Your task to perform on an android device: Go to calendar. Show me events next week Image 0: 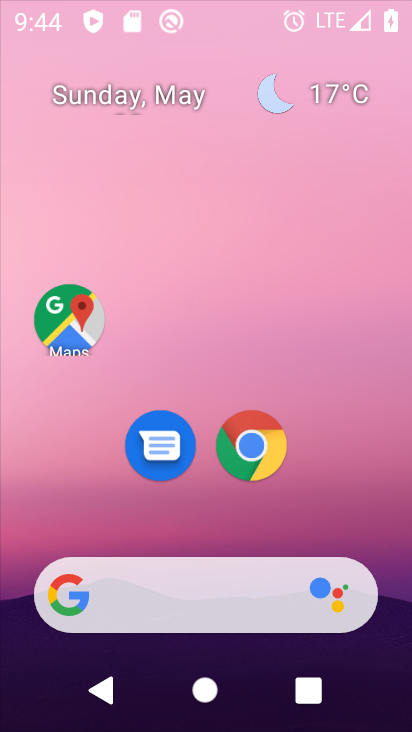
Step 0: click (371, 453)
Your task to perform on an android device: Go to calendar. Show me events next week Image 1: 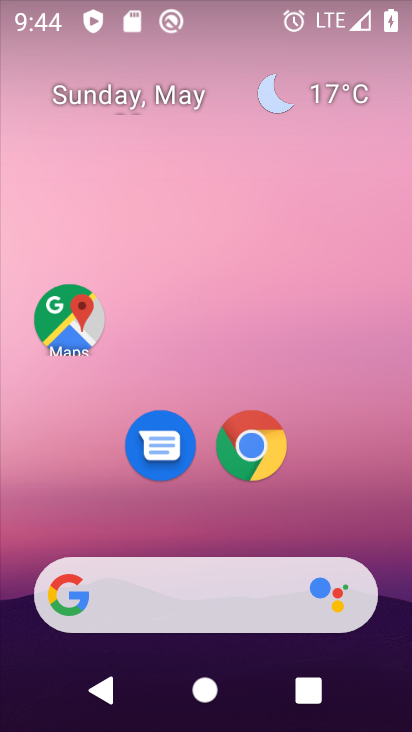
Step 1: drag from (167, 529) to (339, 210)
Your task to perform on an android device: Go to calendar. Show me events next week Image 2: 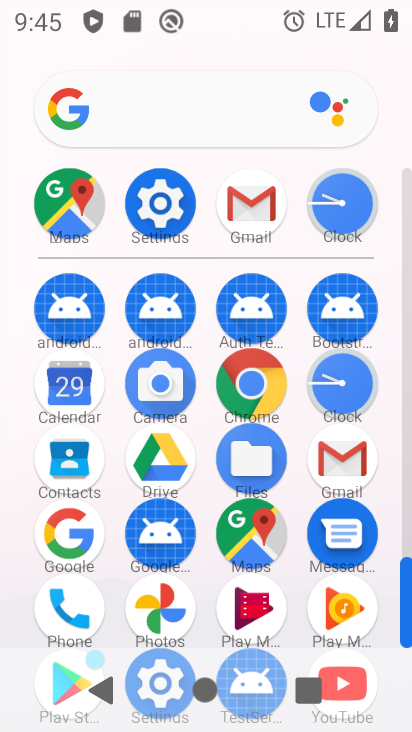
Step 2: click (71, 398)
Your task to perform on an android device: Go to calendar. Show me events next week Image 3: 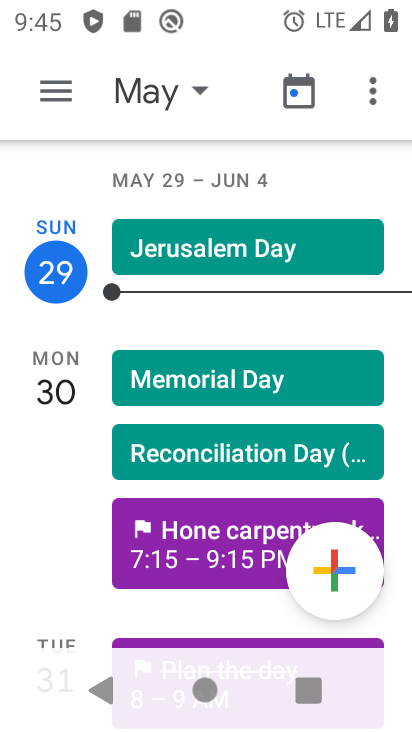
Step 3: drag from (232, 559) to (374, 168)
Your task to perform on an android device: Go to calendar. Show me events next week Image 4: 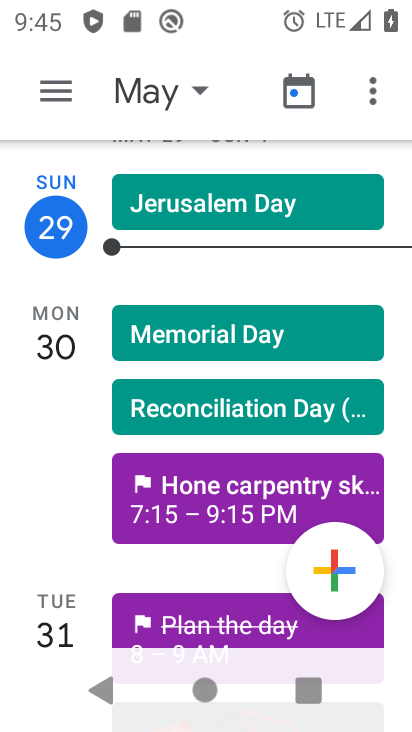
Step 4: click (173, 108)
Your task to perform on an android device: Go to calendar. Show me events next week Image 5: 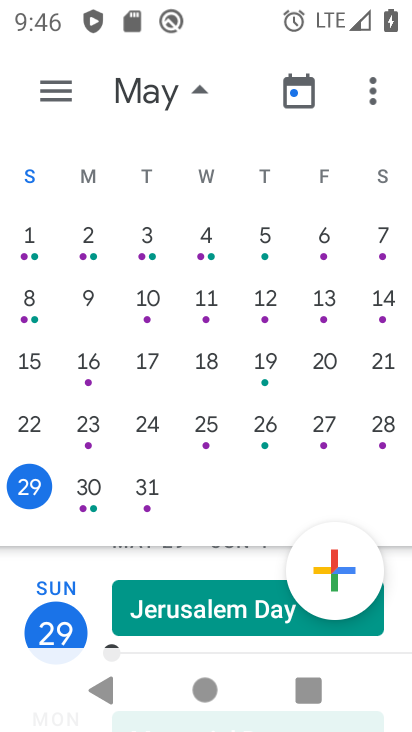
Step 5: click (65, 478)
Your task to perform on an android device: Go to calendar. Show me events next week Image 6: 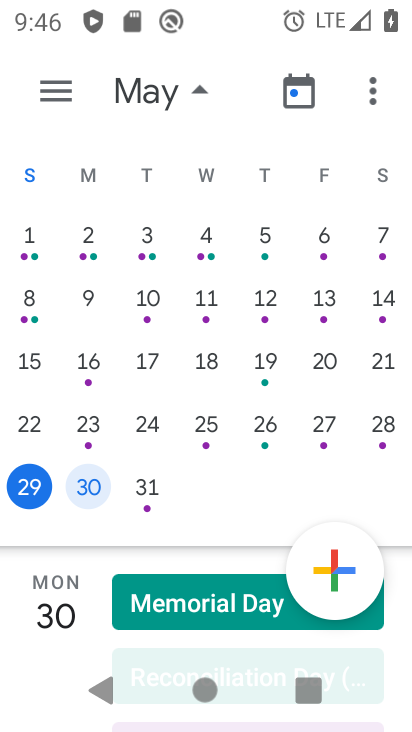
Step 6: click (82, 488)
Your task to perform on an android device: Go to calendar. Show me events next week Image 7: 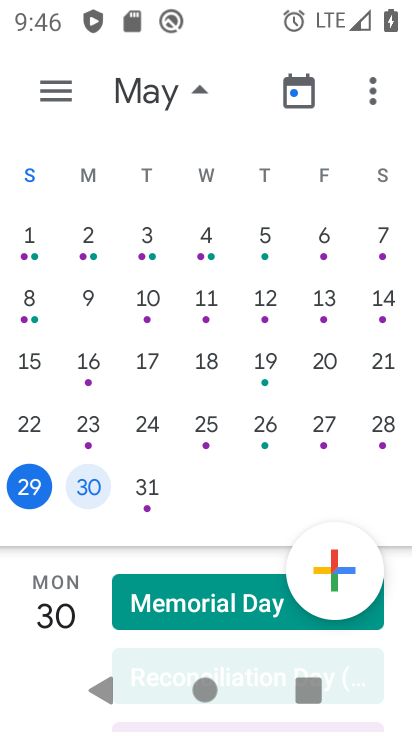
Step 7: task complete